Your task to perform on an android device: show emergency info Image 0: 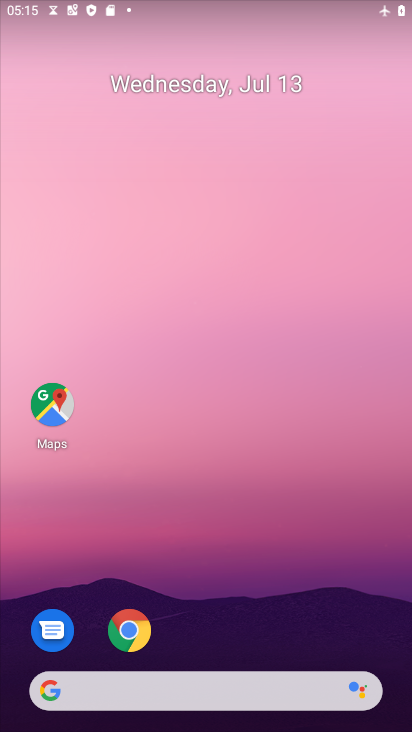
Step 0: drag from (281, 665) to (329, 154)
Your task to perform on an android device: show emergency info Image 1: 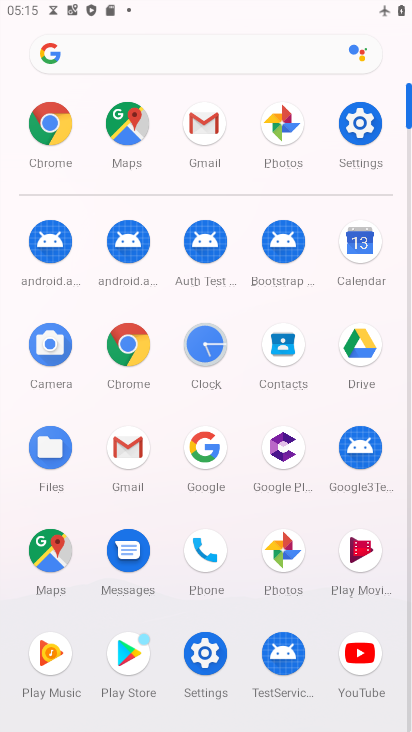
Step 1: click (367, 119)
Your task to perform on an android device: show emergency info Image 2: 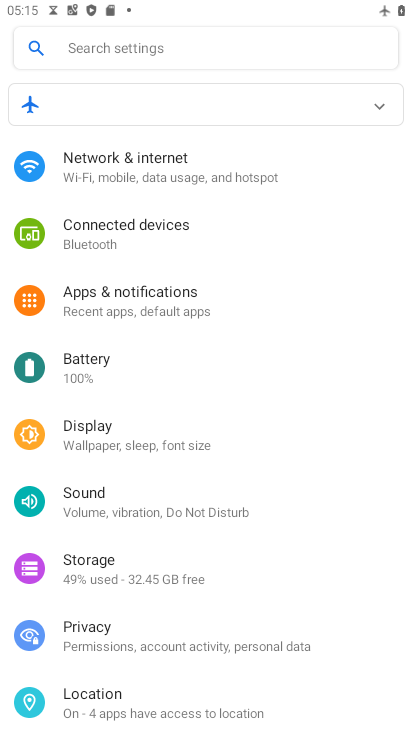
Step 2: drag from (172, 691) to (225, 100)
Your task to perform on an android device: show emergency info Image 3: 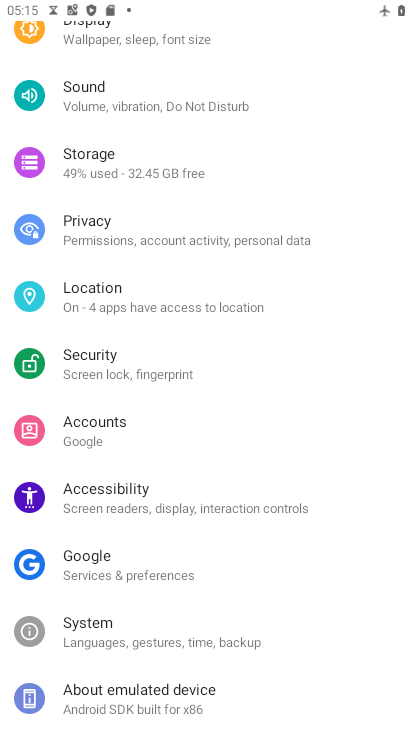
Step 3: click (208, 699)
Your task to perform on an android device: show emergency info Image 4: 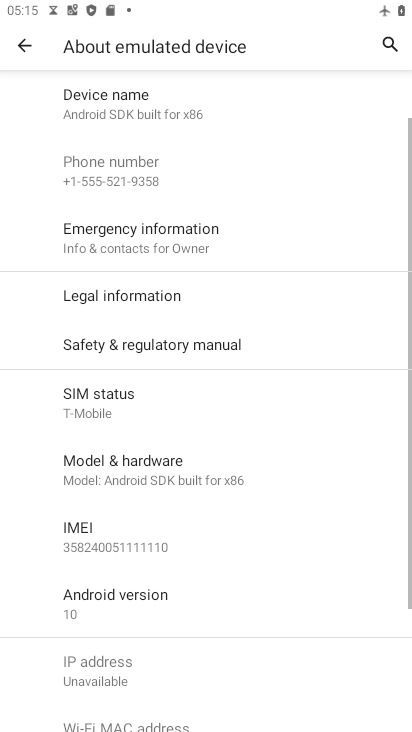
Step 4: click (174, 248)
Your task to perform on an android device: show emergency info Image 5: 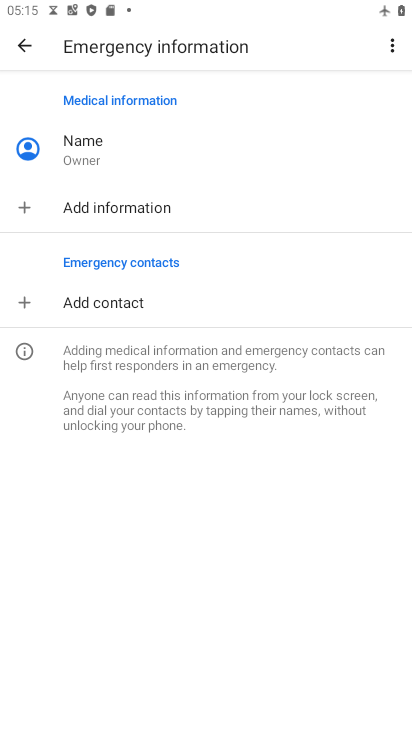
Step 5: task complete